Your task to perform on an android device: turn off priority inbox in the gmail app Image 0: 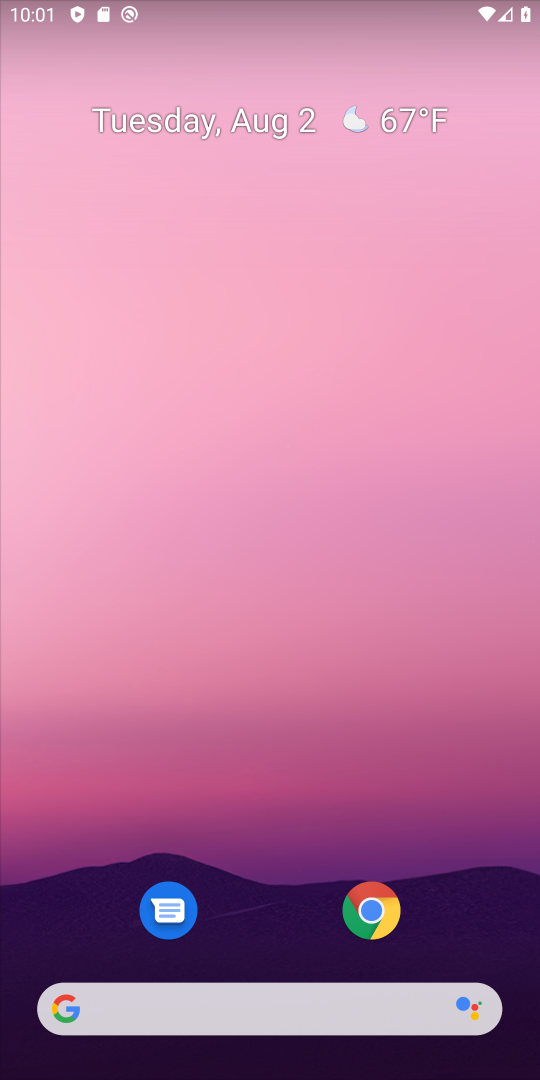
Step 0: drag from (192, 988) to (214, 513)
Your task to perform on an android device: turn off priority inbox in the gmail app Image 1: 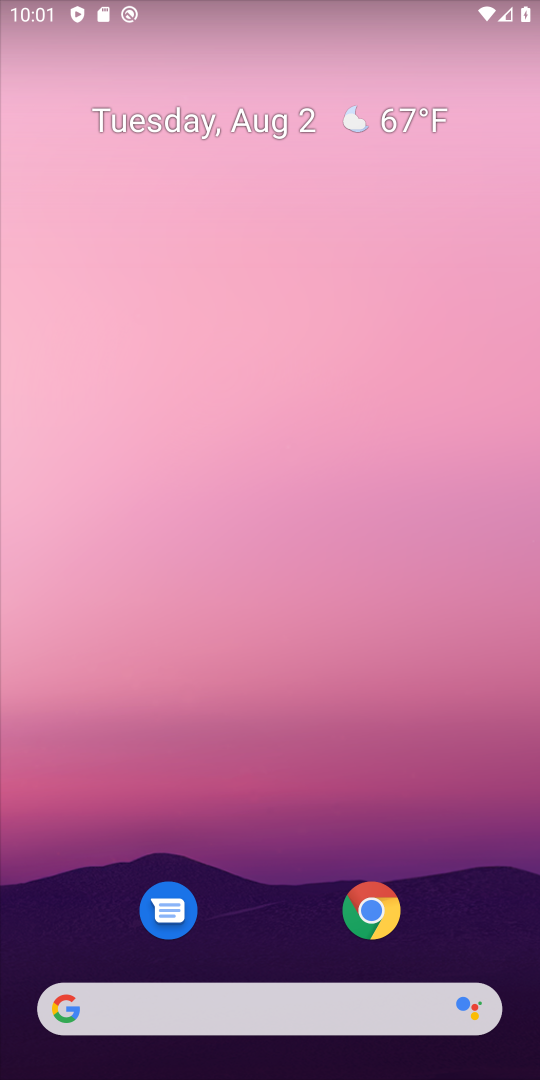
Step 1: drag from (272, 913) to (289, 363)
Your task to perform on an android device: turn off priority inbox in the gmail app Image 2: 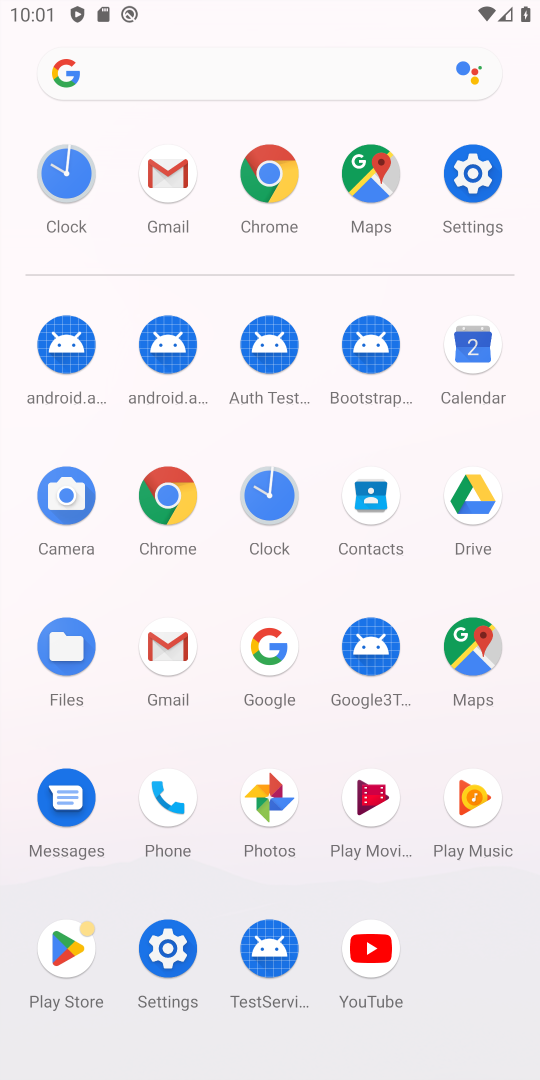
Step 2: click (147, 157)
Your task to perform on an android device: turn off priority inbox in the gmail app Image 3: 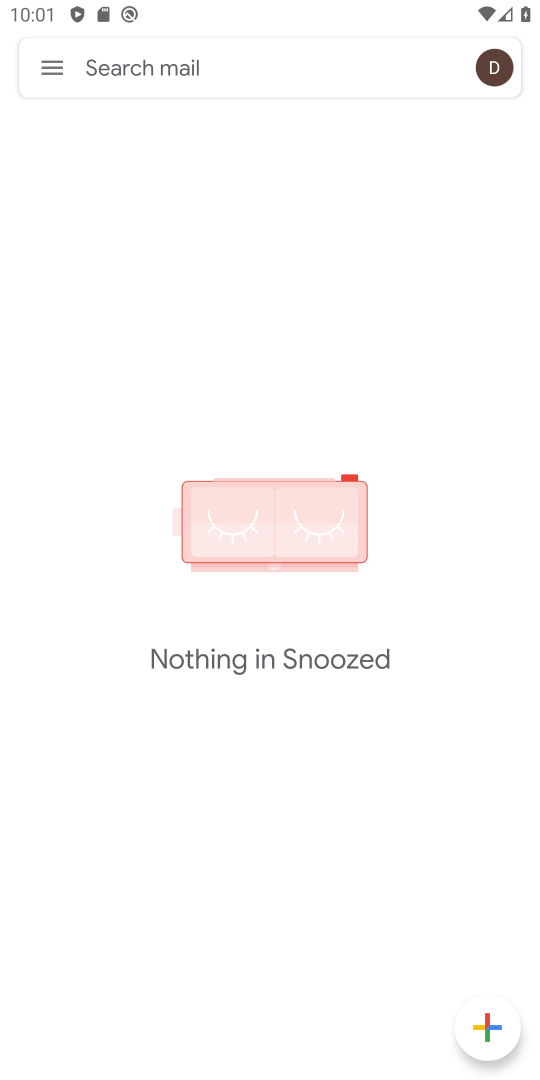
Step 3: click (63, 64)
Your task to perform on an android device: turn off priority inbox in the gmail app Image 4: 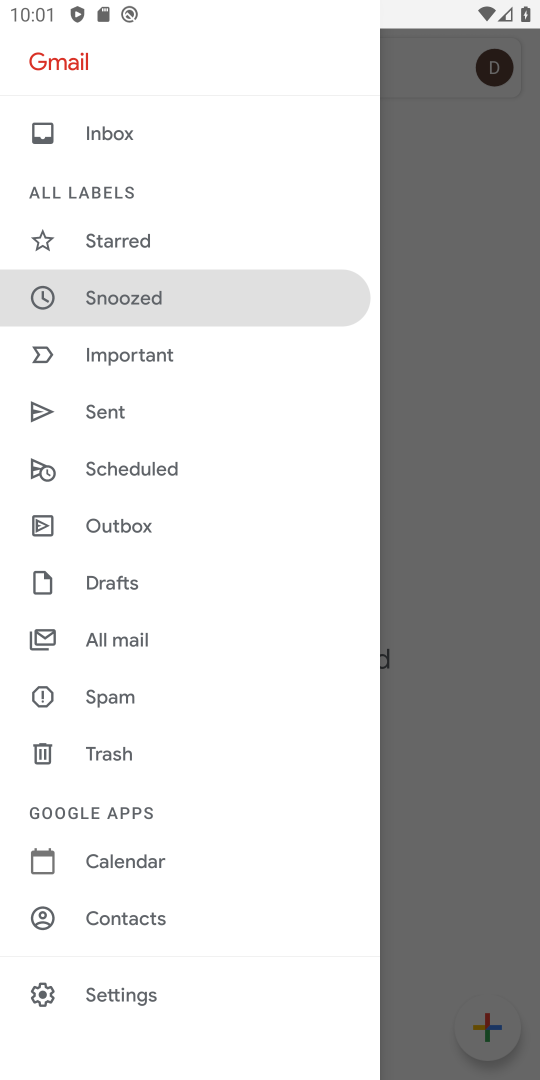
Step 4: click (105, 976)
Your task to perform on an android device: turn off priority inbox in the gmail app Image 5: 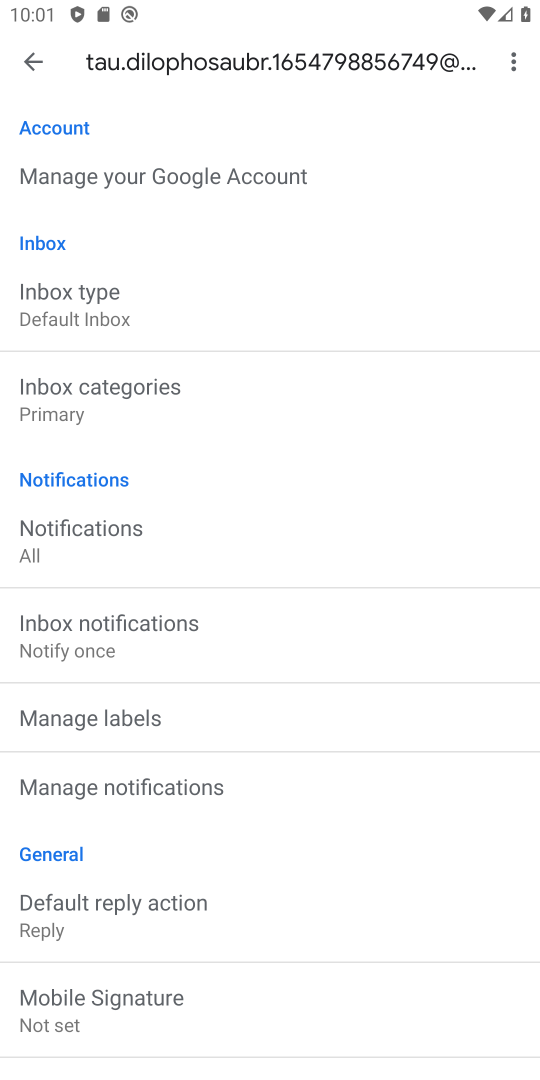
Step 5: click (109, 322)
Your task to perform on an android device: turn off priority inbox in the gmail app Image 6: 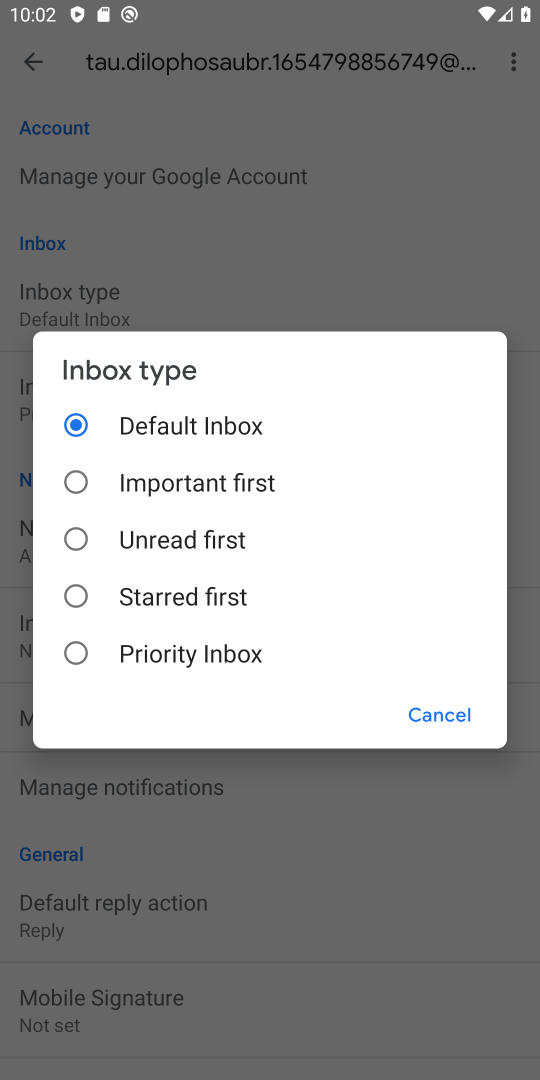
Step 6: task complete